Your task to perform on an android device: Go to settings Image 0: 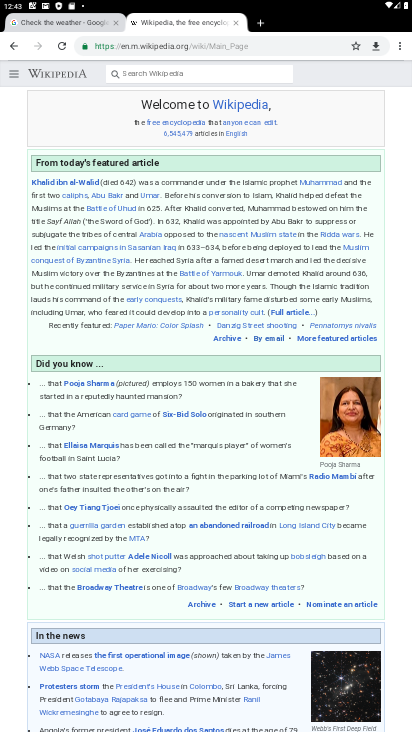
Step 0: press home button
Your task to perform on an android device: Go to settings Image 1: 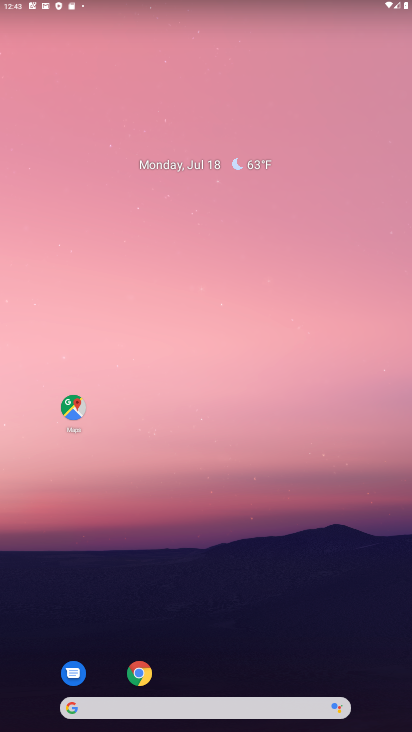
Step 1: drag from (223, 670) to (248, 294)
Your task to perform on an android device: Go to settings Image 2: 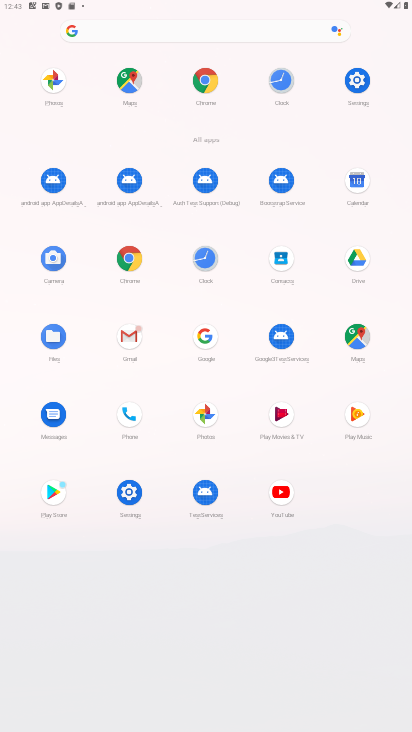
Step 2: click (364, 90)
Your task to perform on an android device: Go to settings Image 3: 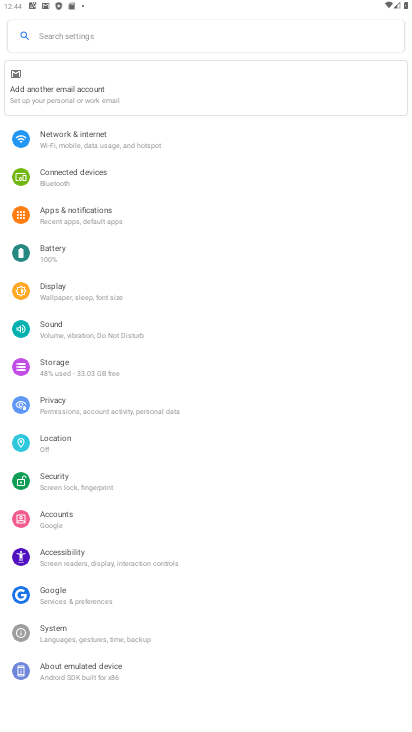
Step 3: task complete